Your task to perform on an android device: Toggle the flashlight Image 0: 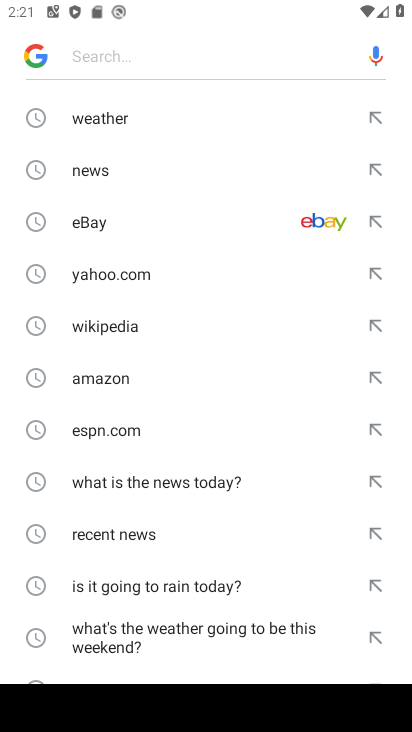
Step 0: press home button
Your task to perform on an android device: Toggle the flashlight Image 1: 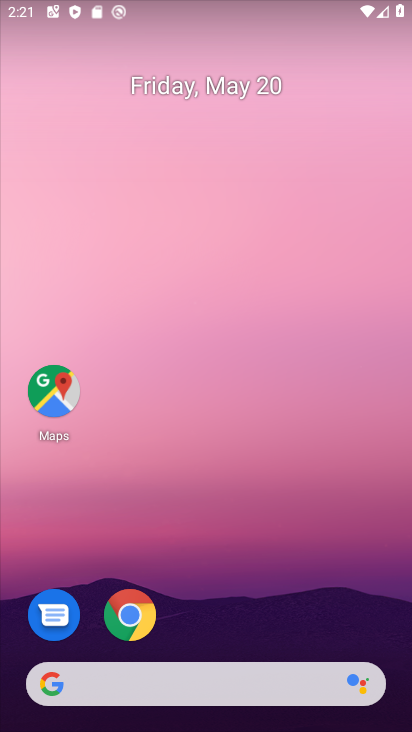
Step 1: drag from (260, 402) to (283, 203)
Your task to perform on an android device: Toggle the flashlight Image 2: 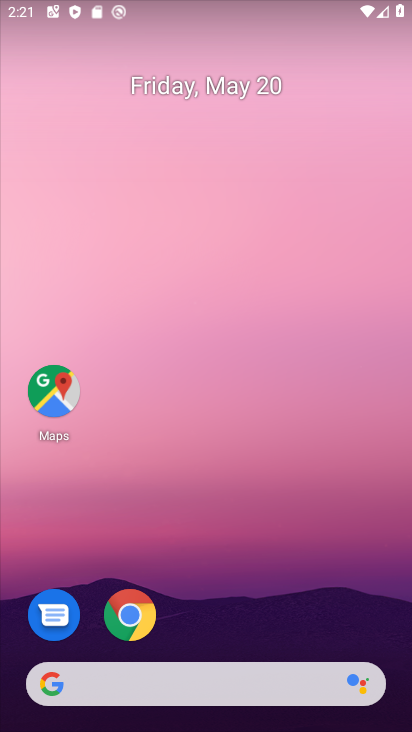
Step 2: drag from (286, 400) to (288, 211)
Your task to perform on an android device: Toggle the flashlight Image 3: 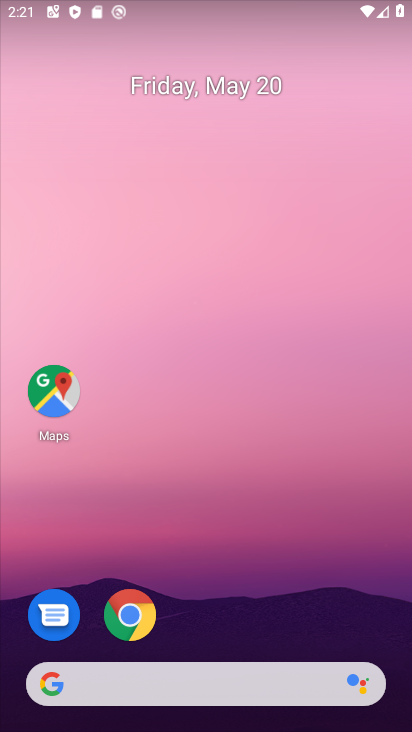
Step 3: drag from (240, 617) to (288, 238)
Your task to perform on an android device: Toggle the flashlight Image 4: 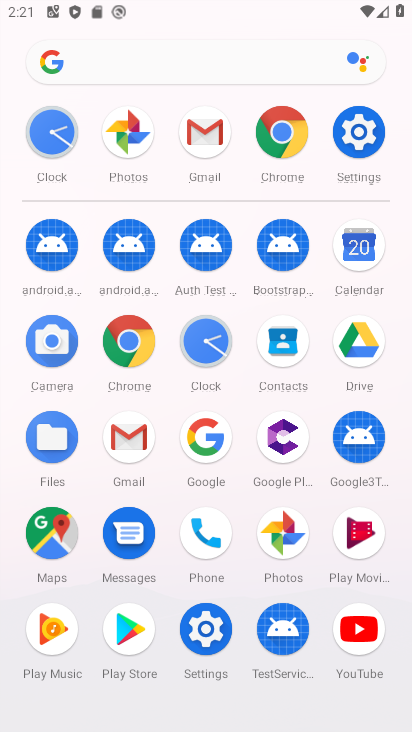
Step 4: click (341, 145)
Your task to perform on an android device: Toggle the flashlight Image 5: 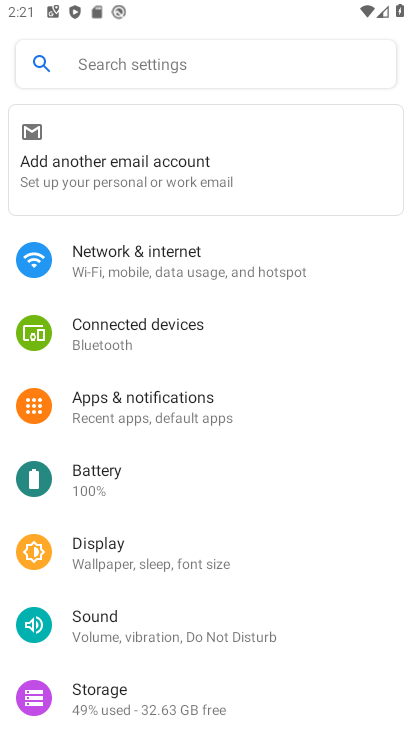
Step 5: task complete